Your task to perform on an android device: open sync settings in chrome Image 0: 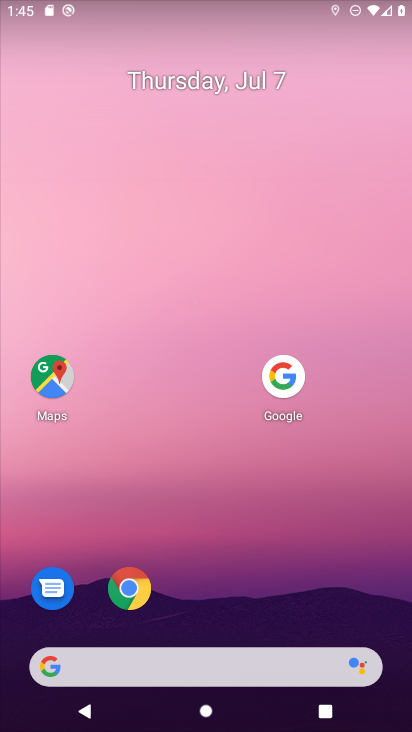
Step 0: click (134, 597)
Your task to perform on an android device: open sync settings in chrome Image 1: 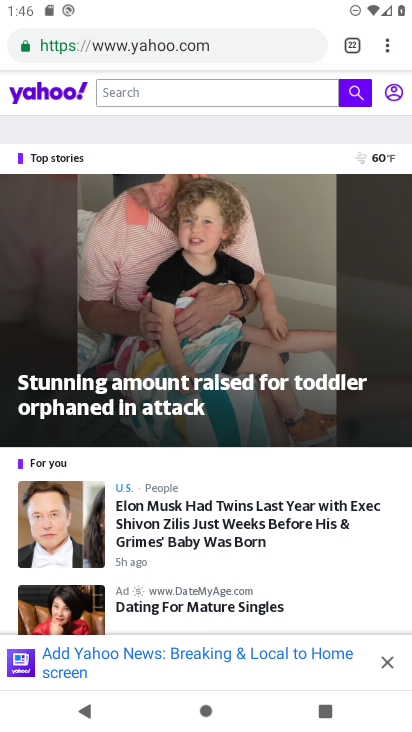
Step 1: drag from (384, 44) to (249, 548)
Your task to perform on an android device: open sync settings in chrome Image 2: 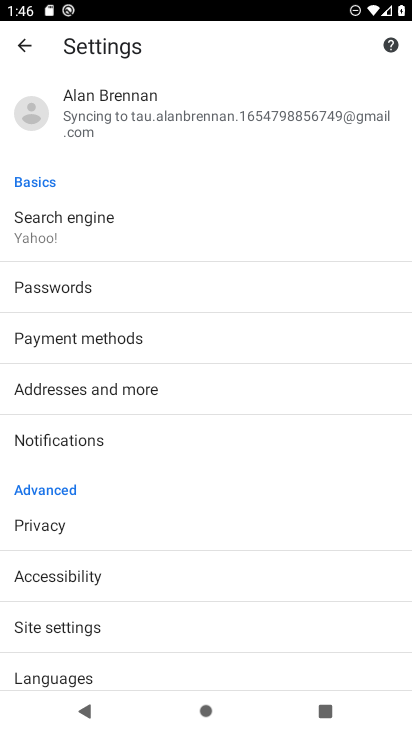
Step 2: click (132, 108)
Your task to perform on an android device: open sync settings in chrome Image 3: 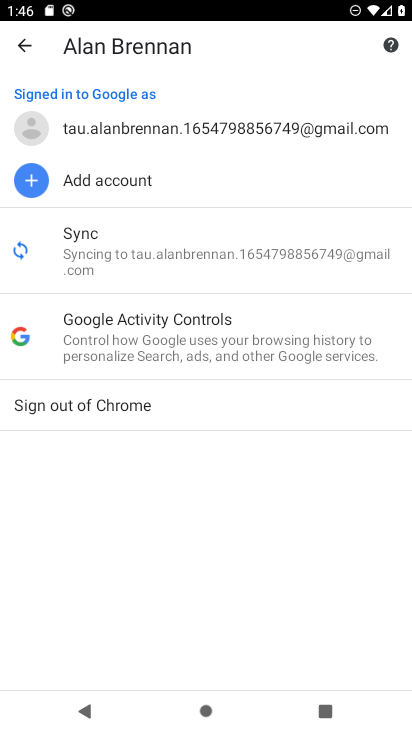
Step 3: click (176, 261)
Your task to perform on an android device: open sync settings in chrome Image 4: 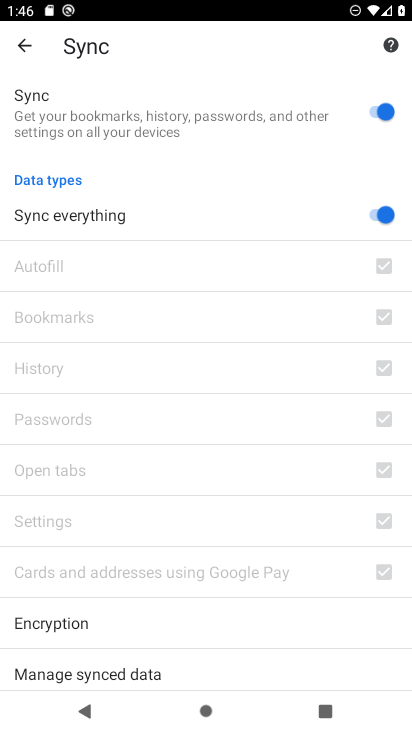
Step 4: task complete